Your task to perform on an android device: Go to Google Image 0: 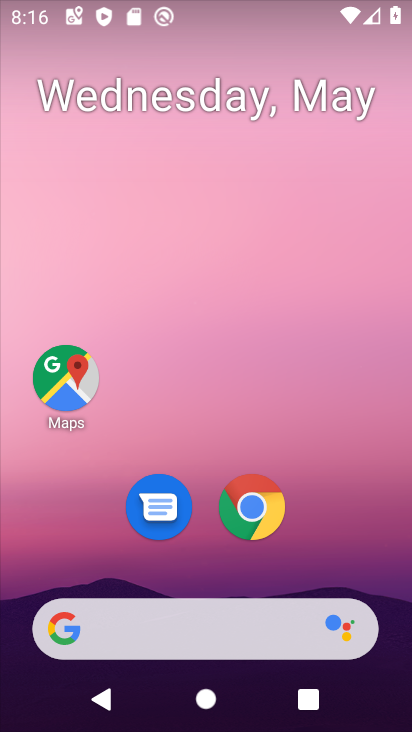
Step 0: drag from (325, 504) to (324, 278)
Your task to perform on an android device: Go to Google Image 1: 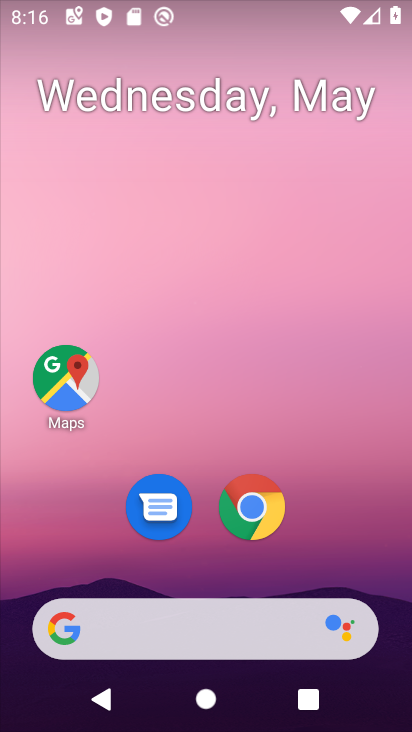
Step 1: drag from (338, 486) to (300, 244)
Your task to perform on an android device: Go to Google Image 2: 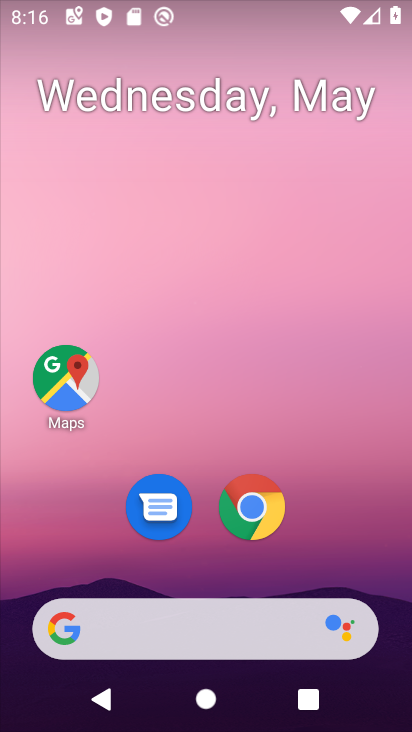
Step 2: drag from (347, 408) to (320, 275)
Your task to perform on an android device: Go to Google Image 3: 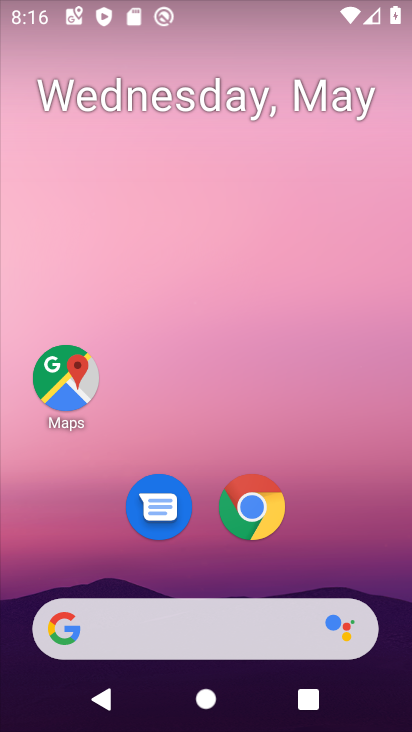
Step 3: drag from (332, 517) to (340, 177)
Your task to perform on an android device: Go to Google Image 4: 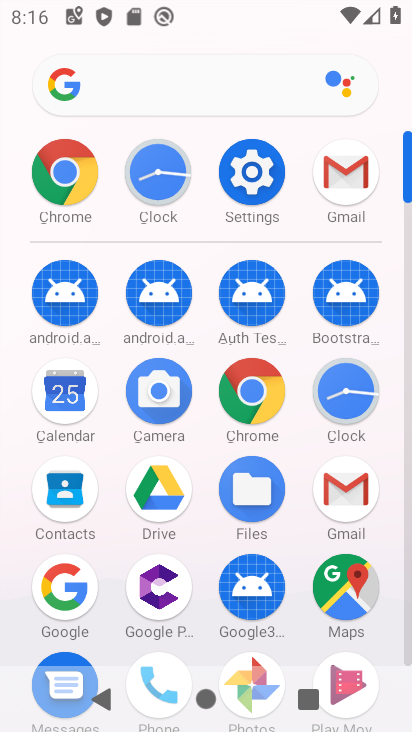
Step 4: click (77, 574)
Your task to perform on an android device: Go to Google Image 5: 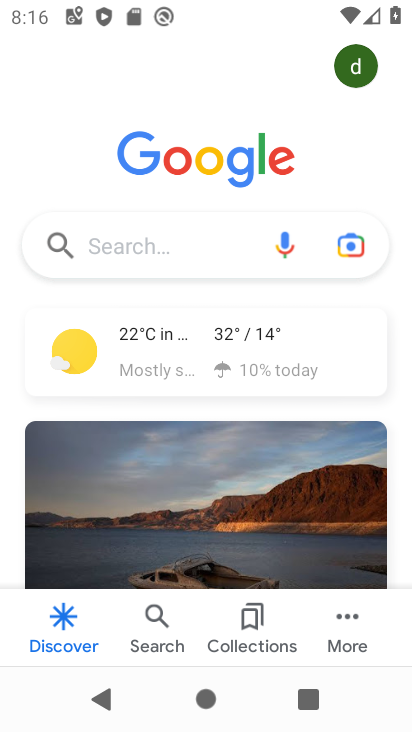
Step 5: task complete